Your task to perform on an android device: change notifications settings Image 0: 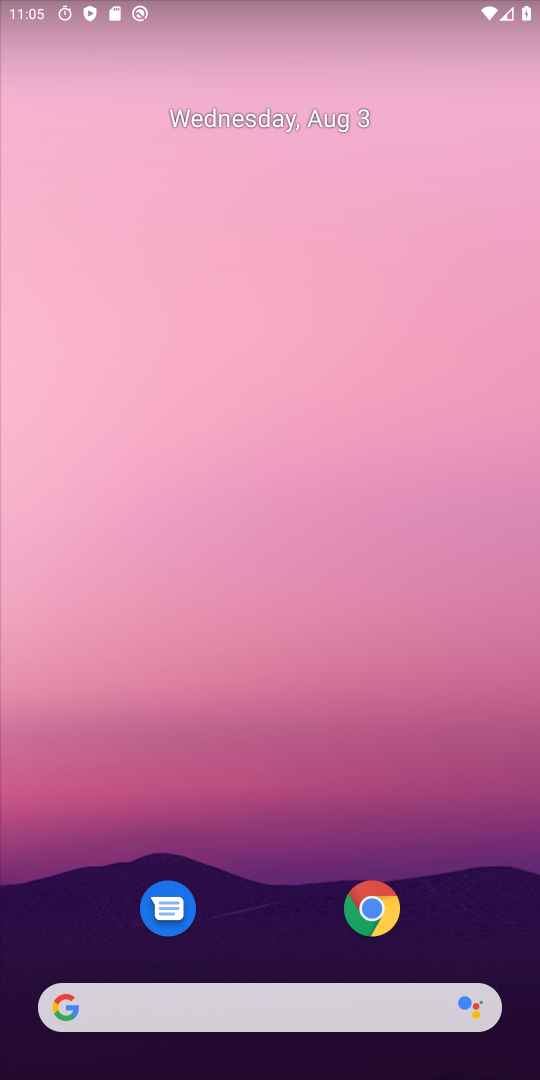
Step 0: drag from (320, 1018) to (75, 269)
Your task to perform on an android device: change notifications settings Image 1: 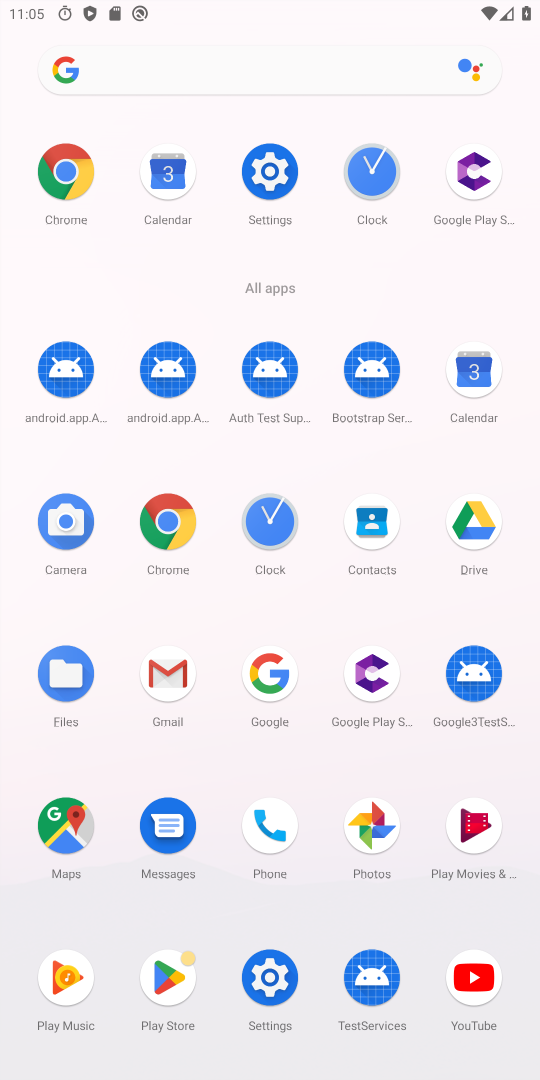
Step 1: click (258, 186)
Your task to perform on an android device: change notifications settings Image 2: 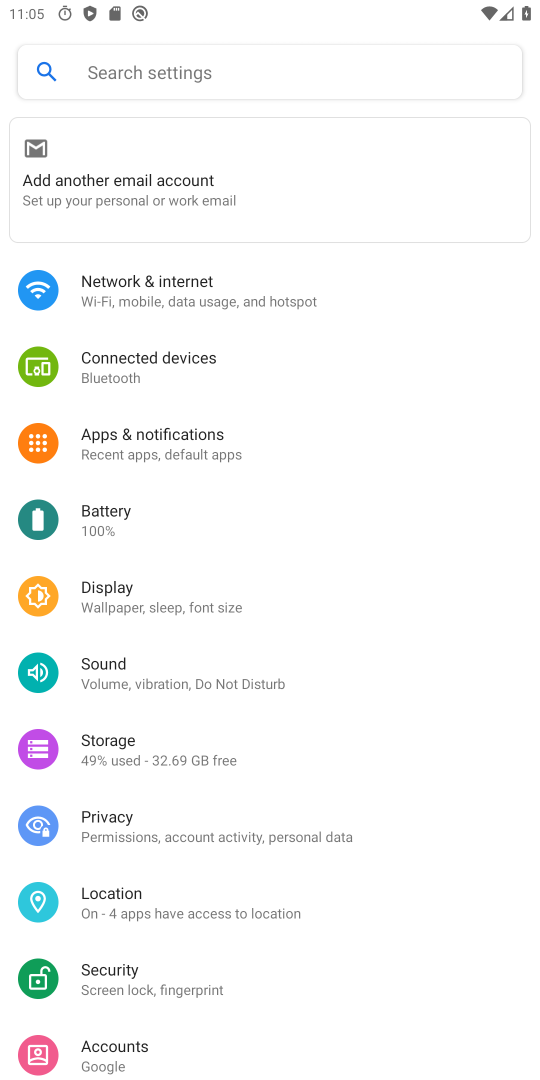
Step 2: click (183, 75)
Your task to perform on an android device: change notifications settings Image 3: 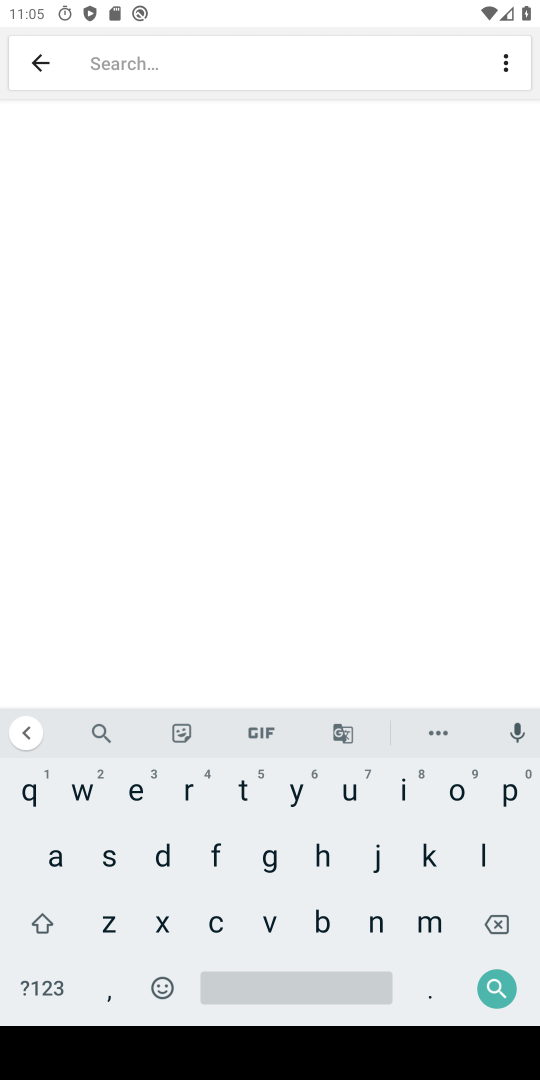
Step 3: click (373, 928)
Your task to perform on an android device: change notifications settings Image 4: 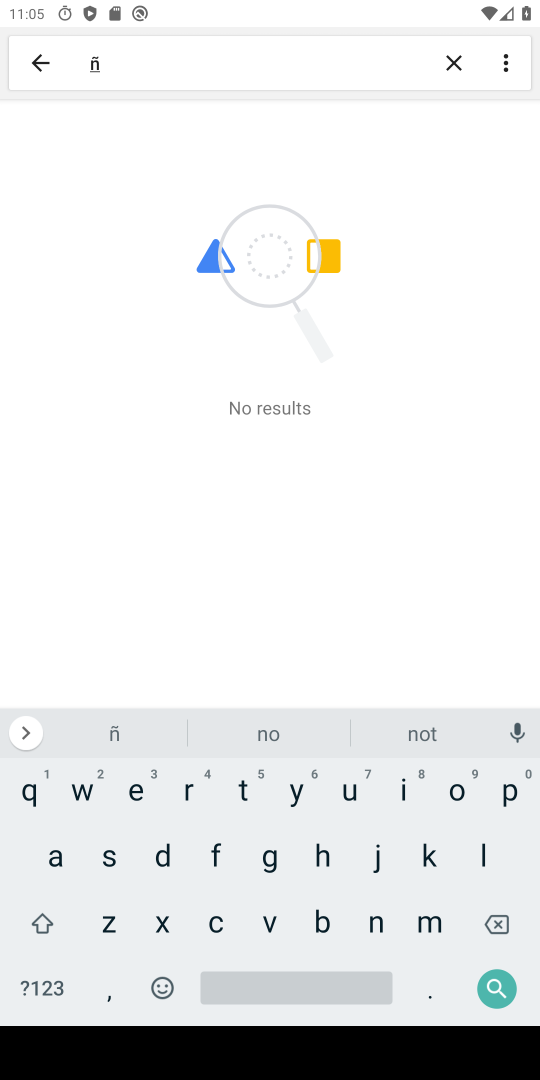
Step 4: click (451, 788)
Your task to perform on an android device: change notifications settings Image 5: 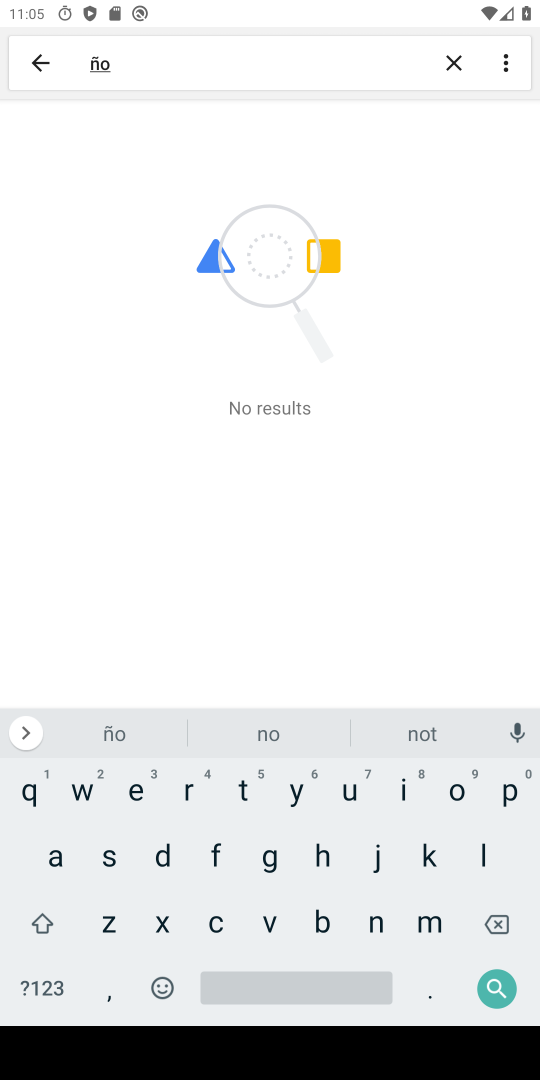
Step 5: click (446, 66)
Your task to perform on an android device: change notifications settings Image 6: 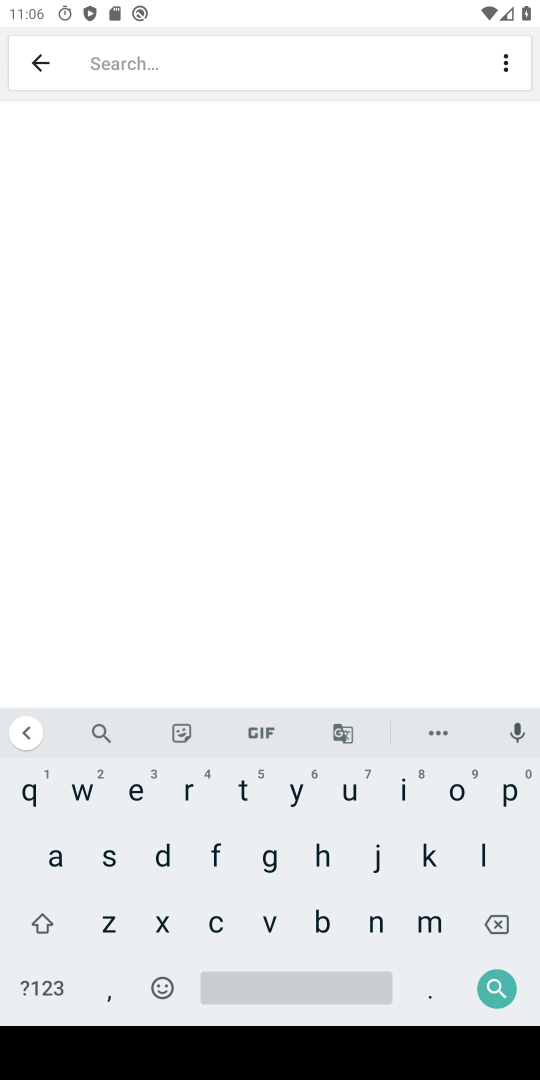
Step 6: click (372, 925)
Your task to perform on an android device: change notifications settings Image 7: 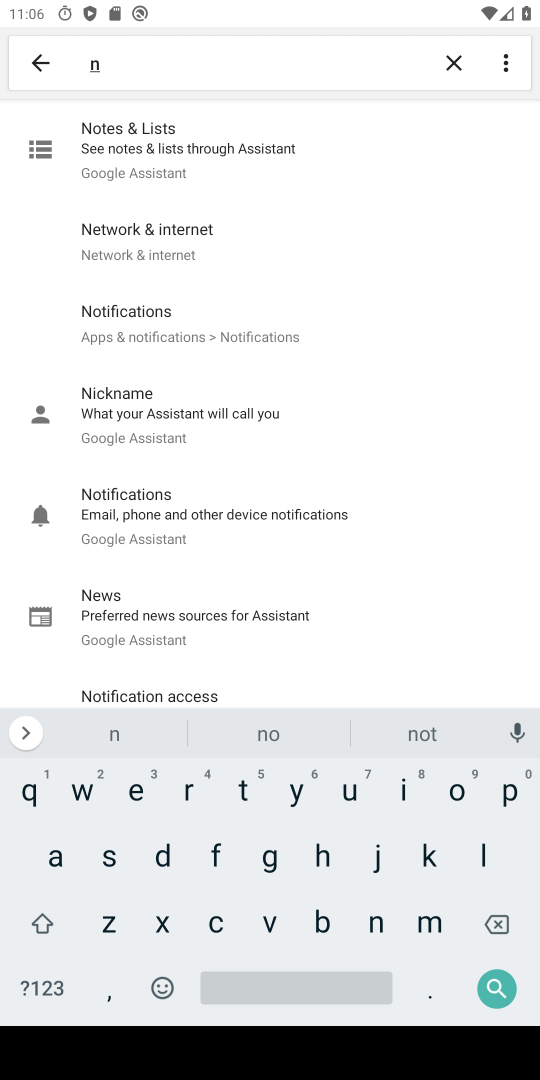
Step 7: click (461, 794)
Your task to perform on an android device: change notifications settings Image 8: 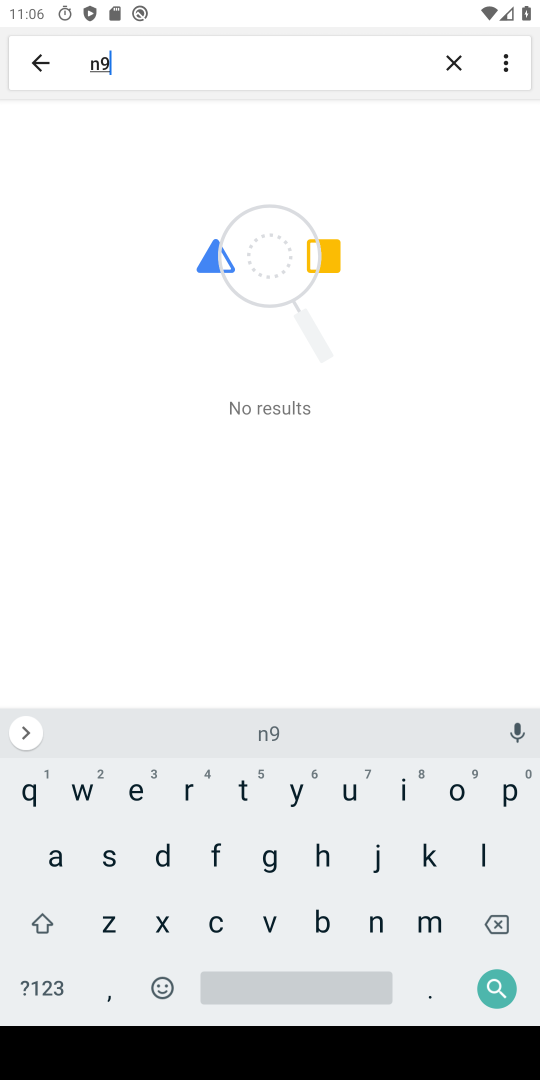
Step 8: click (499, 923)
Your task to perform on an android device: change notifications settings Image 9: 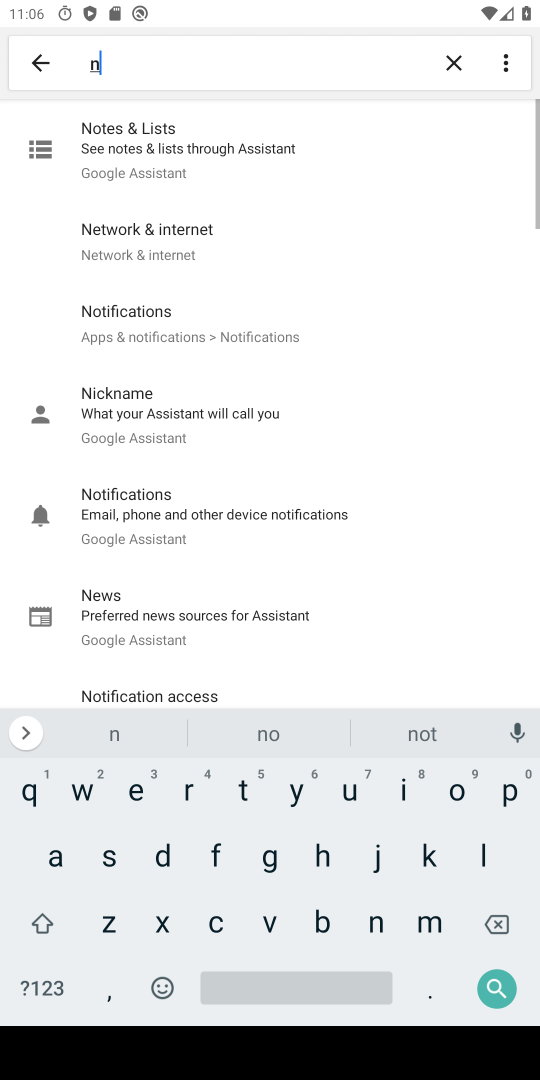
Step 9: click (456, 801)
Your task to perform on an android device: change notifications settings Image 10: 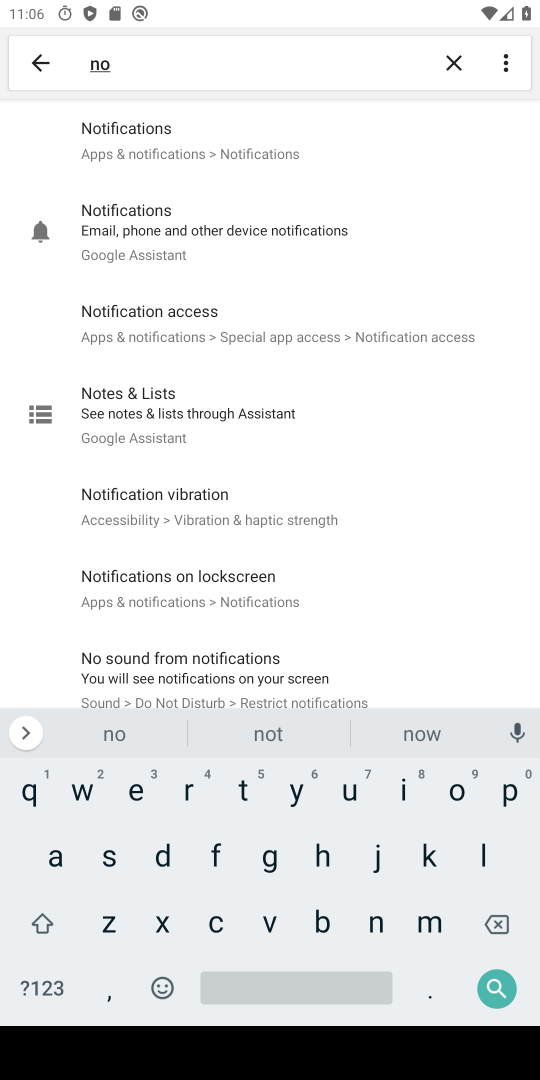
Step 10: click (173, 129)
Your task to perform on an android device: change notifications settings Image 11: 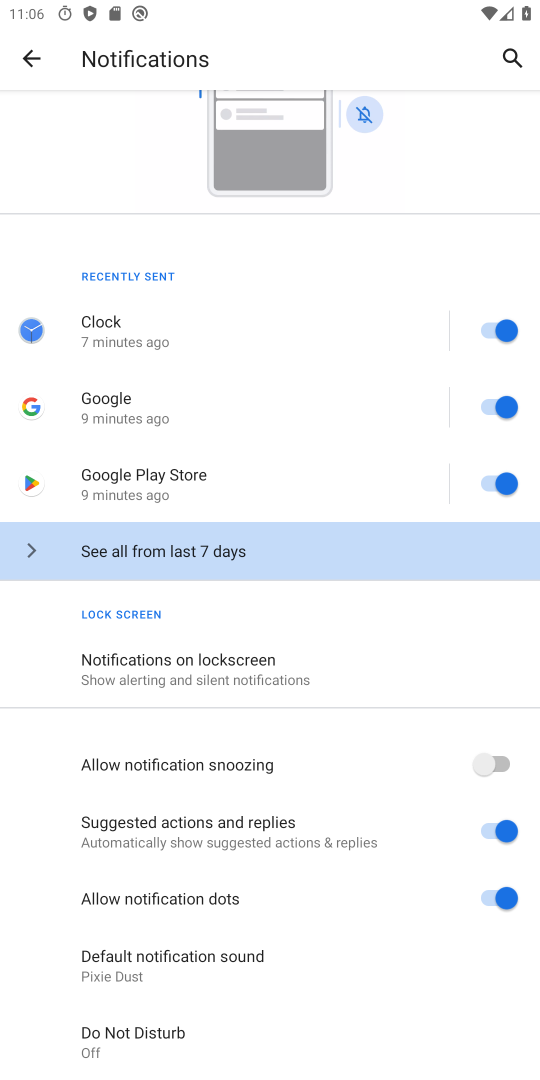
Step 11: click (177, 665)
Your task to perform on an android device: change notifications settings Image 12: 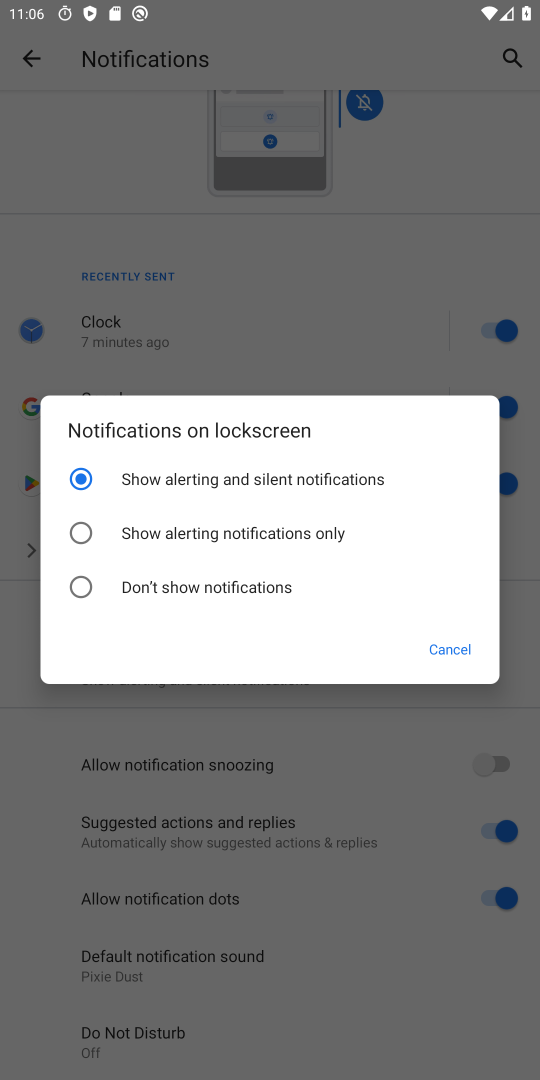
Step 12: task complete